Your task to perform on an android device: What's the price of the new iPhone on eBay? Image 0: 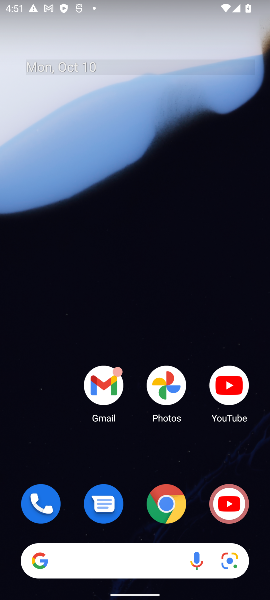
Step 0: drag from (86, 471) to (160, 21)
Your task to perform on an android device: What's the price of the new iPhone on eBay? Image 1: 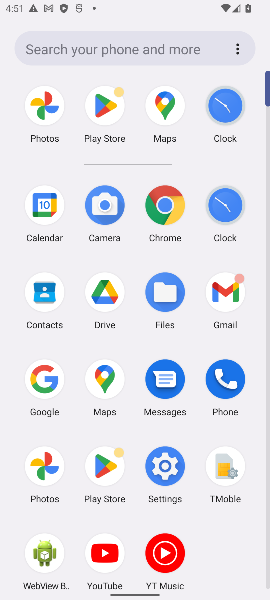
Step 1: click (161, 206)
Your task to perform on an android device: What's the price of the new iPhone on eBay? Image 2: 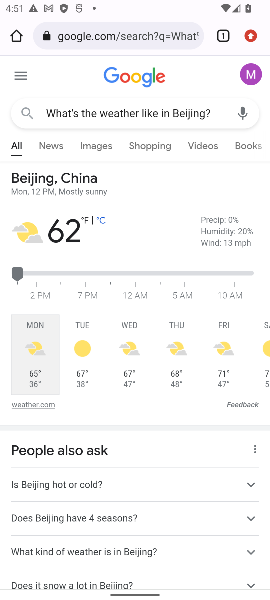
Step 2: click (131, 99)
Your task to perform on an android device: What's the price of the new iPhone on eBay? Image 3: 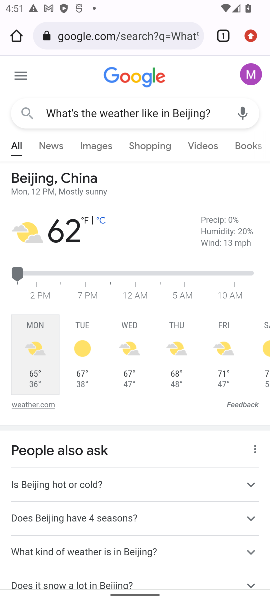
Step 3: click (128, 111)
Your task to perform on an android device: What's the price of the new iPhone on eBay? Image 4: 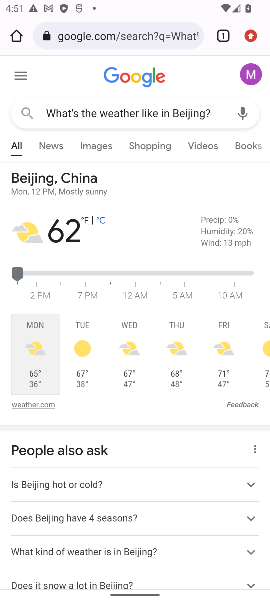
Step 4: click (128, 111)
Your task to perform on an android device: What's the price of the new iPhone on eBay? Image 5: 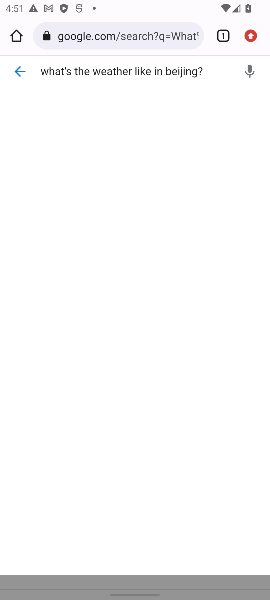
Step 5: click (128, 111)
Your task to perform on an android device: What's the price of the new iPhone on eBay? Image 6: 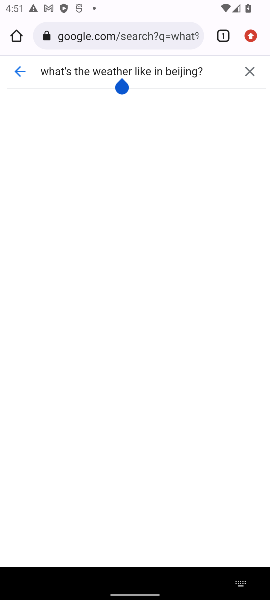
Step 6: click (149, 42)
Your task to perform on an android device: What's the price of the new iPhone on eBay? Image 7: 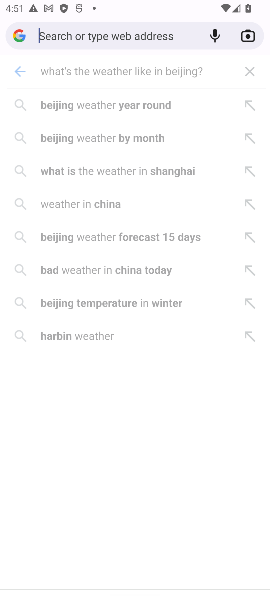
Step 7: click (156, 28)
Your task to perform on an android device: What's the price of the new iPhone on eBay? Image 8: 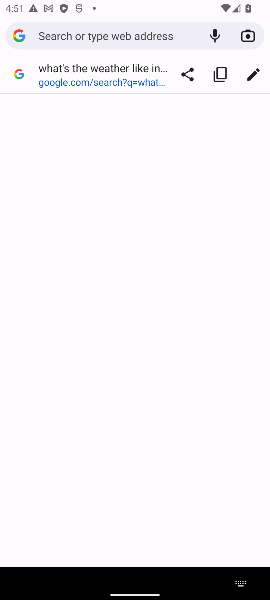
Step 8: type "What's the price of the new iPhone on eBay?"
Your task to perform on an android device: What's the price of the new iPhone on eBay? Image 9: 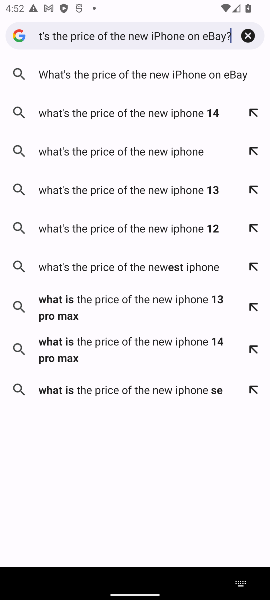
Step 9: press enter
Your task to perform on an android device: What's the price of the new iPhone on eBay? Image 10: 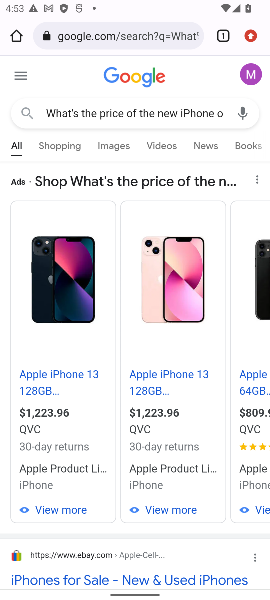
Step 10: task complete